Your task to perform on an android device: Search for hotels in Miami Image 0: 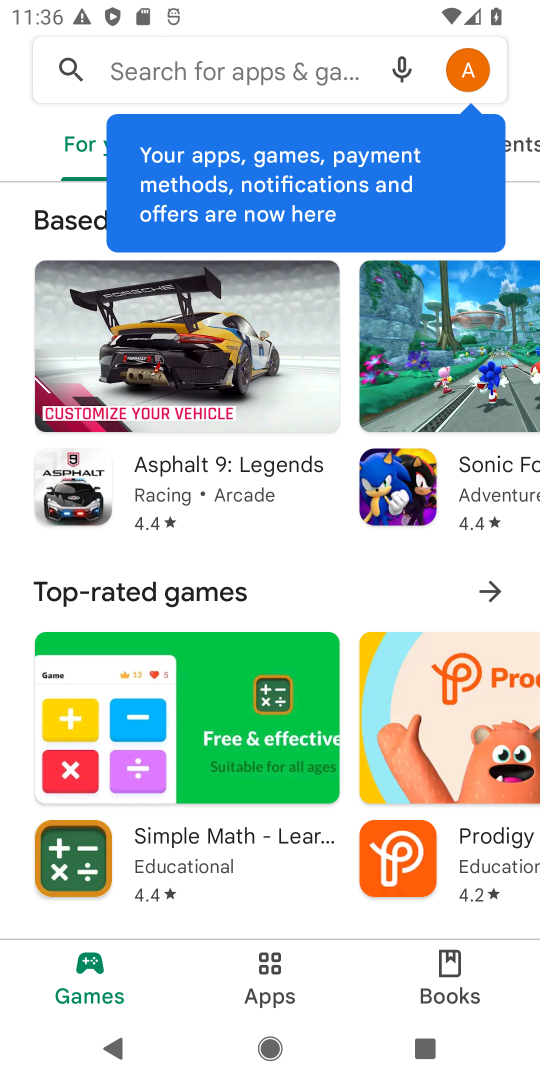
Step 0: press home button
Your task to perform on an android device: Search for hotels in Miami Image 1: 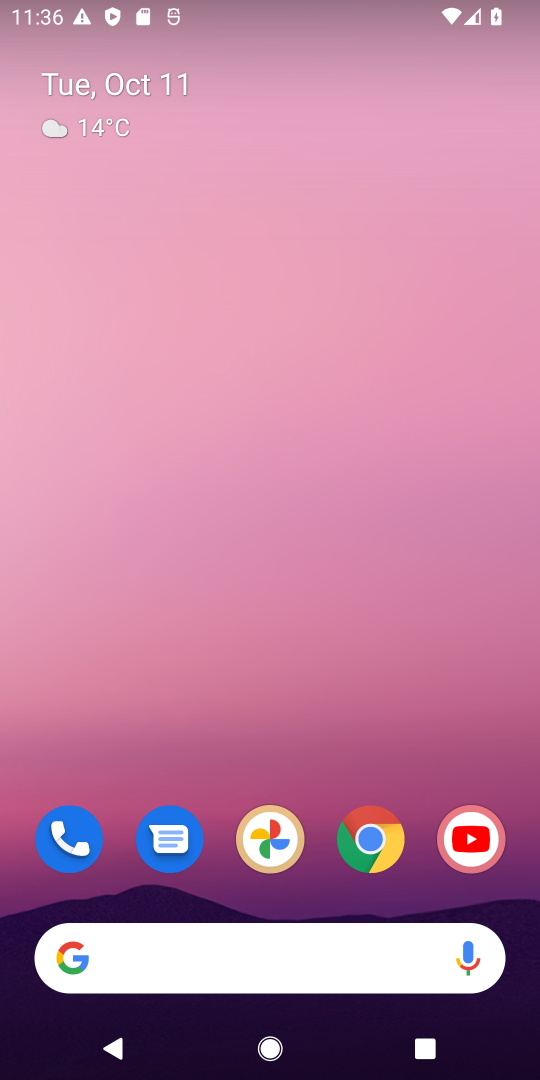
Step 1: click (378, 864)
Your task to perform on an android device: Search for hotels in Miami Image 2: 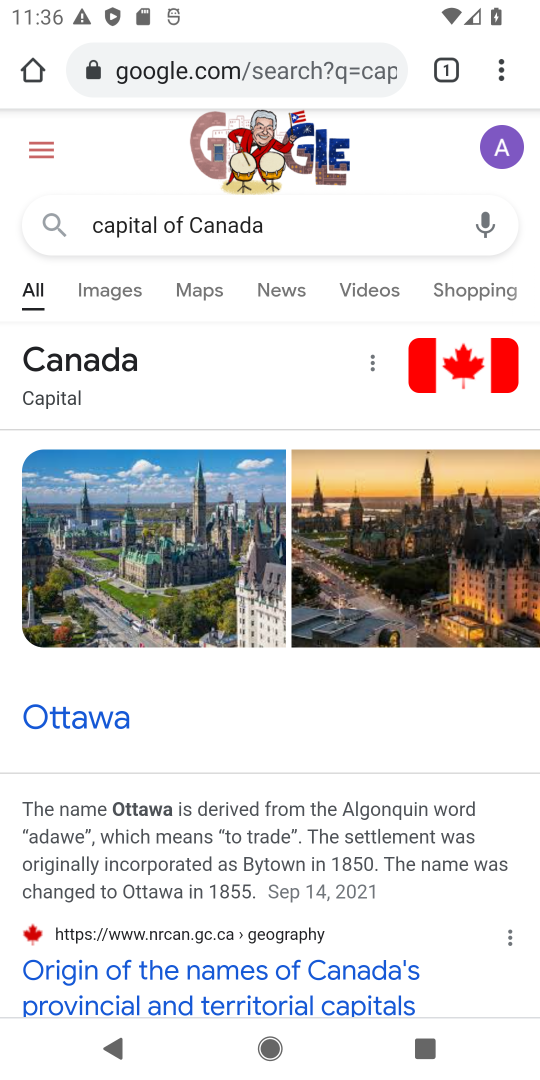
Step 2: click (315, 76)
Your task to perform on an android device: Search for hotels in Miami Image 3: 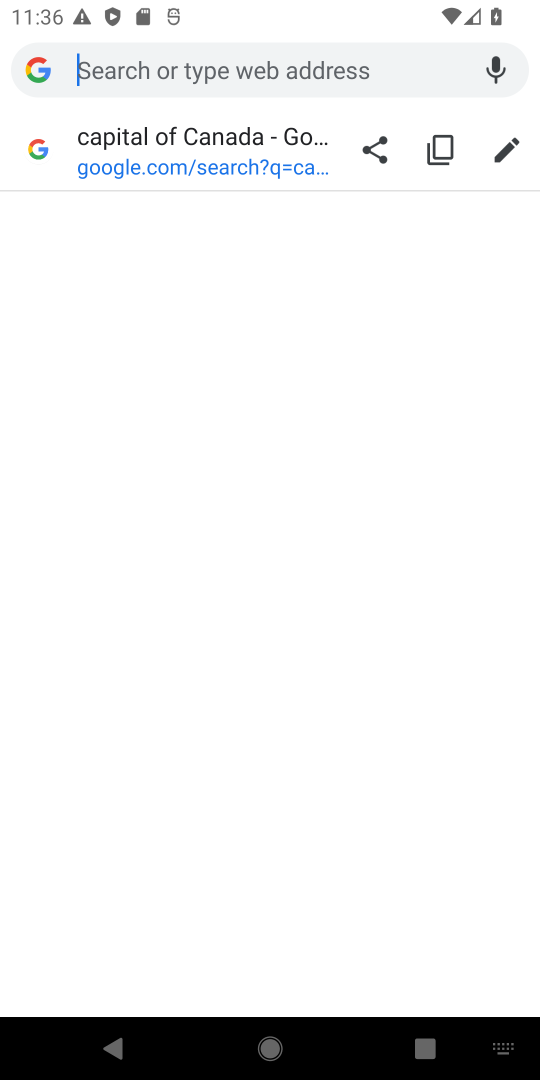
Step 3: type "hotels in Miami"
Your task to perform on an android device: Search for hotels in Miami Image 4: 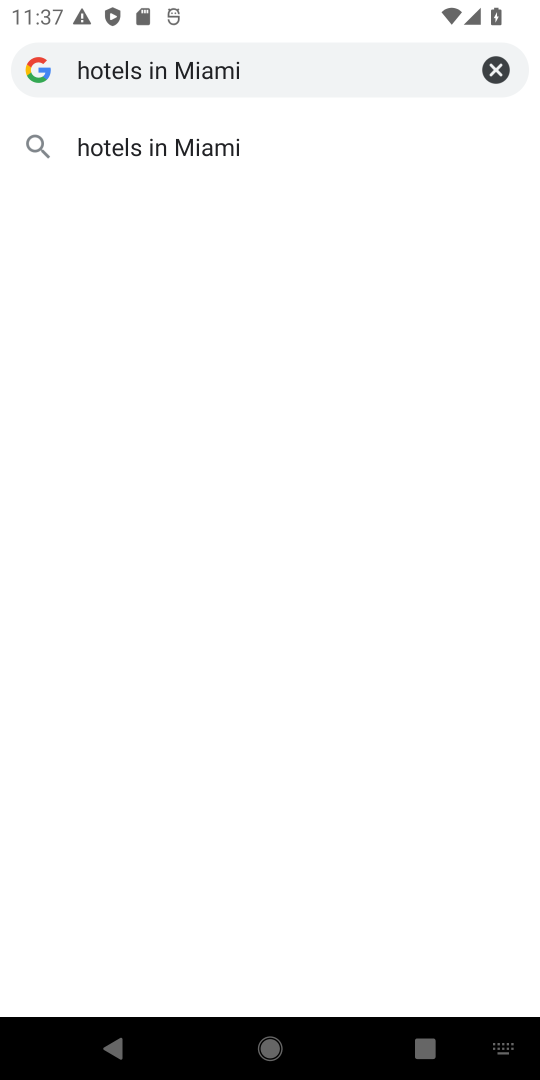
Step 4: click (289, 131)
Your task to perform on an android device: Search for hotels in Miami Image 5: 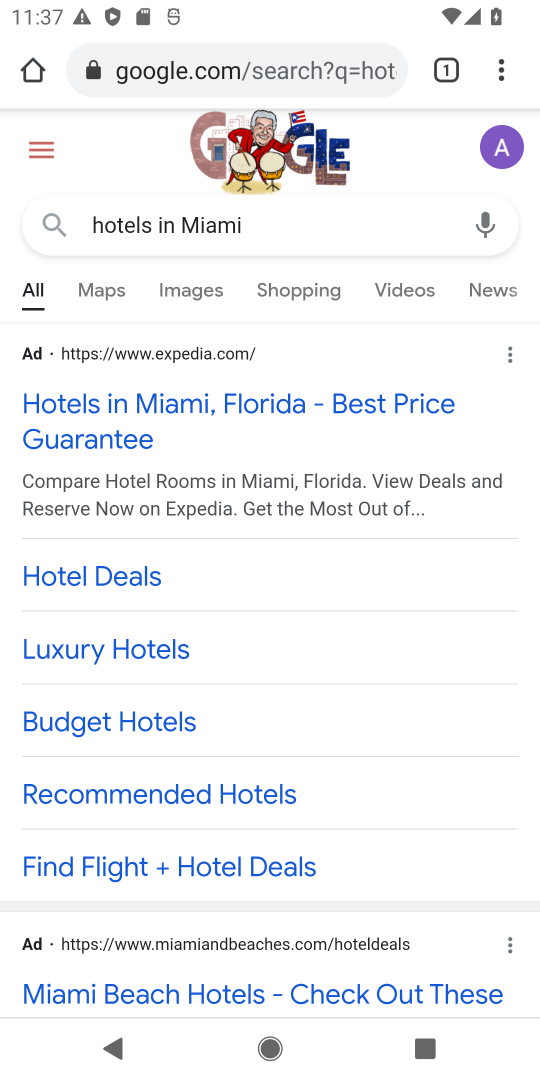
Step 5: task complete